Your task to perform on an android device: Go to ESPN.com Image 0: 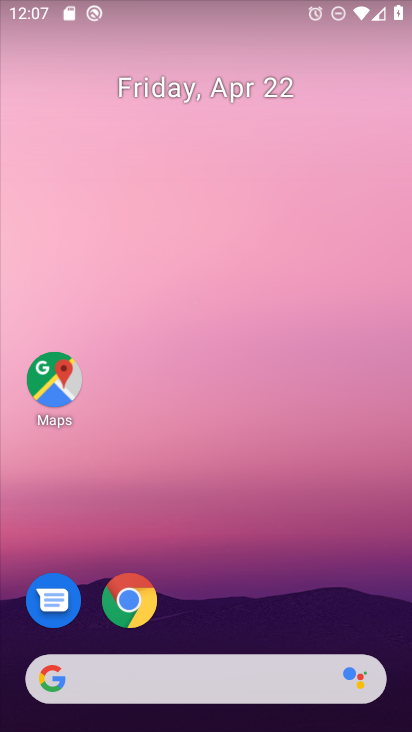
Step 0: click (130, 601)
Your task to perform on an android device: Go to ESPN.com Image 1: 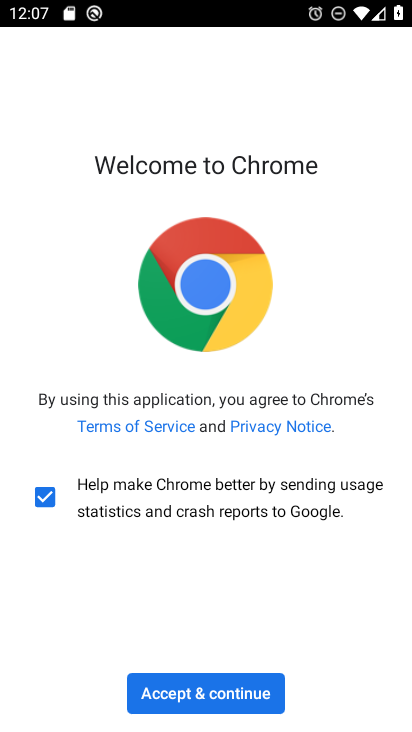
Step 1: click (202, 695)
Your task to perform on an android device: Go to ESPN.com Image 2: 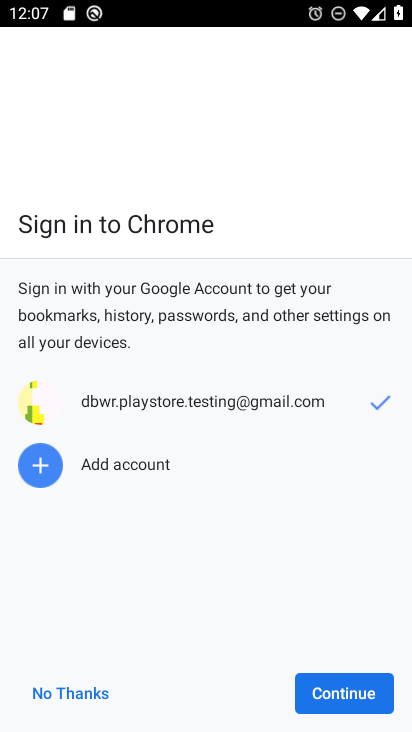
Step 2: click (326, 691)
Your task to perform on an android device: Go to ESPN.com Image 3: 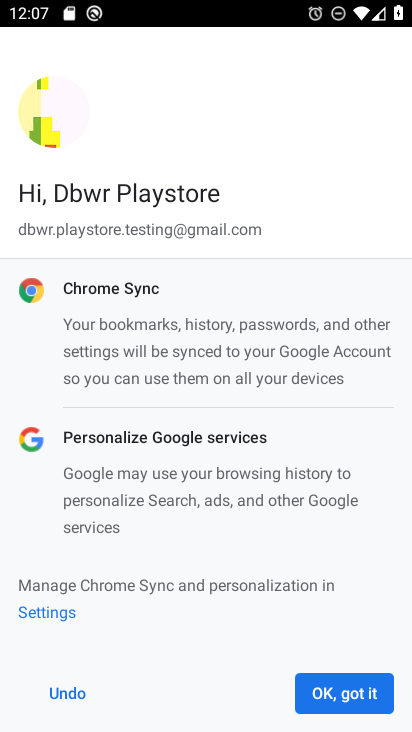
Step 3: click (326, 691)
Your task to perform on an android device: Go to ESPN.com Image 4: 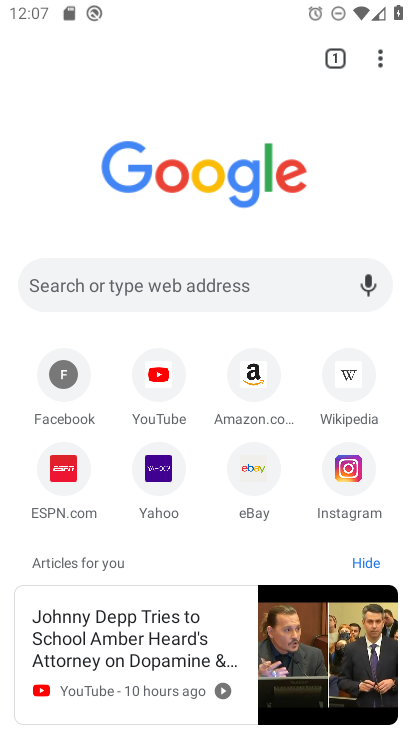
Step 4: click (248, 289)
Your task to perform on an android device: Go to ESPN.com Image 5: 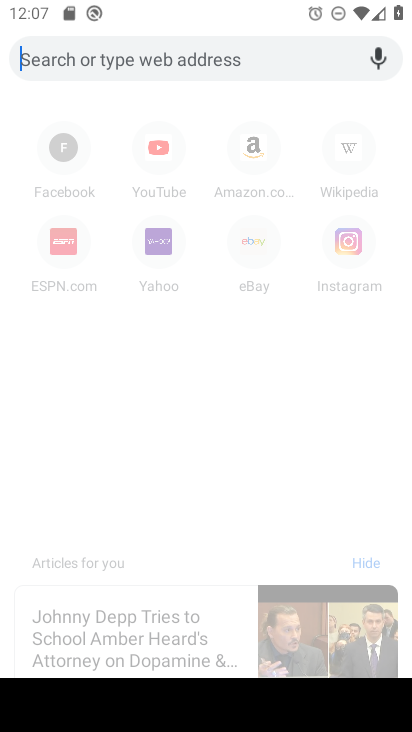
Step 5: type "ESPN.com"
Your task to perform on an android device: Go to ESPN.com Image 6: 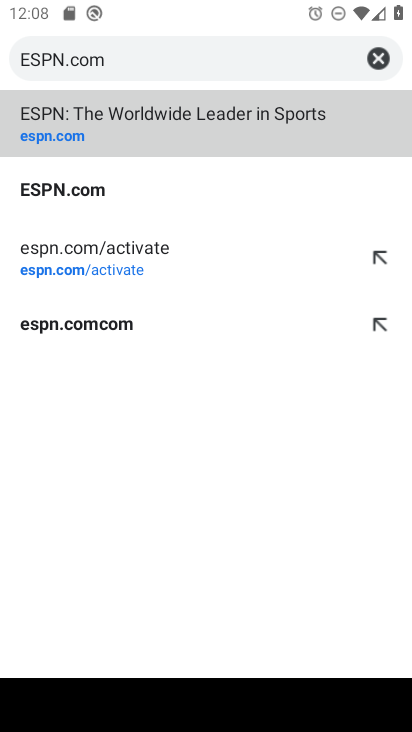
Step 6: click (70, 191)
Your task to perform on an android device: Go to ESPN.com Image 7: 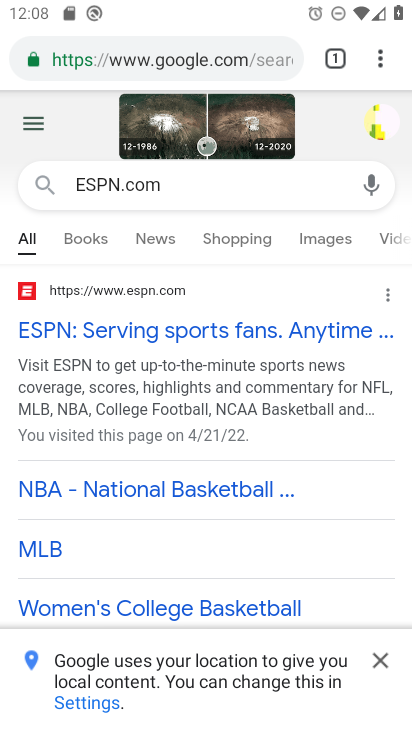
Step 7: task complete